Your task to perform on an android device: toggle wifi Image 0: 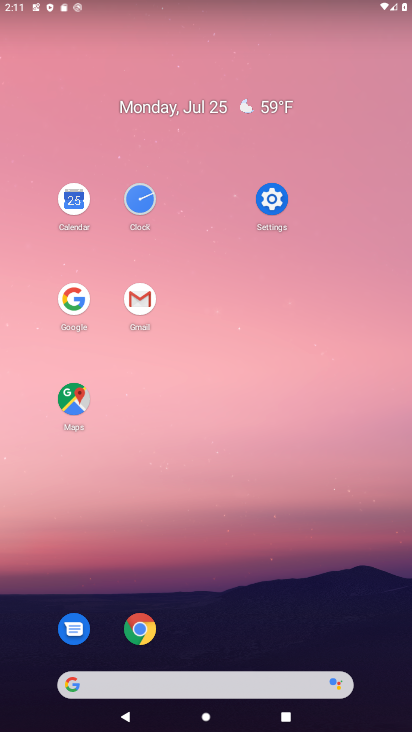
Step 0: click (272, 190)
Your task to perform on an android device: toggle wifi Image 1: 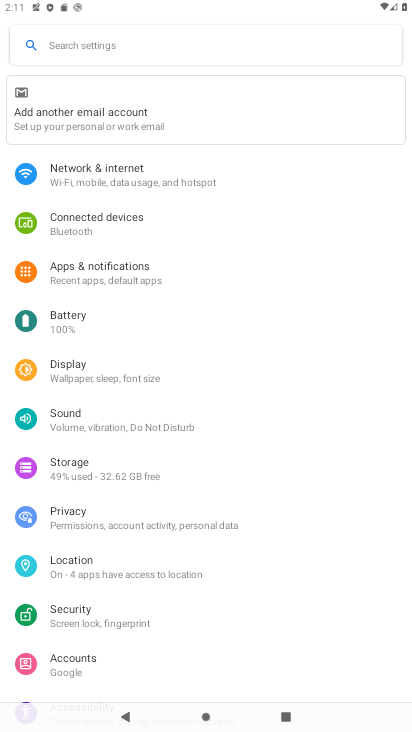
Step 1: click (205, 173)
Your task to perform on an android device: toggle wifi Image 2: 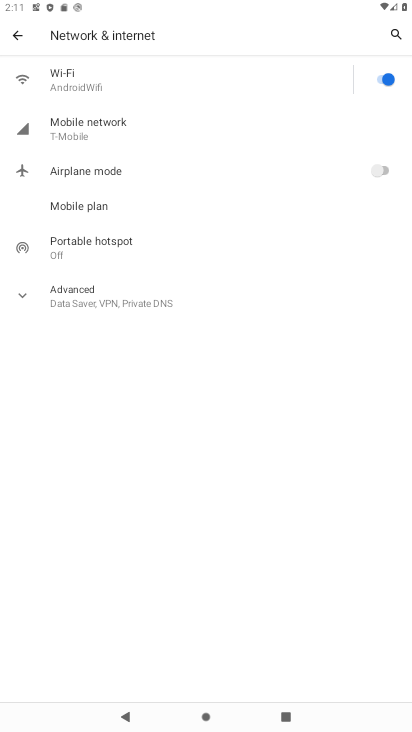
Step 2: click (368, 73)
Your task to perform on an android device: toggle wifi Image 3: 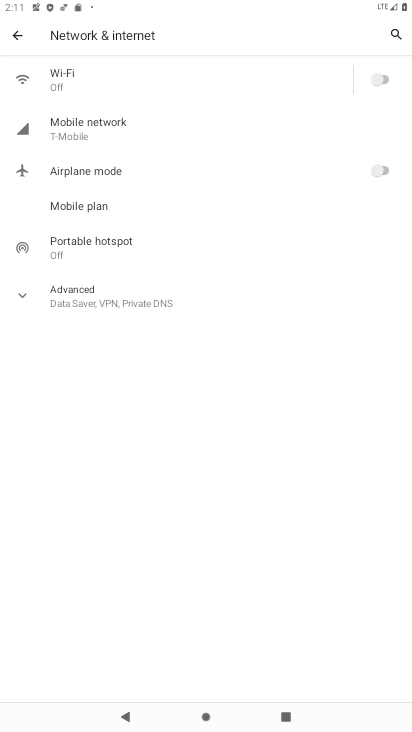
Step 3: task complete